Your task to perform on an android device: What's the weather today? Image 0: 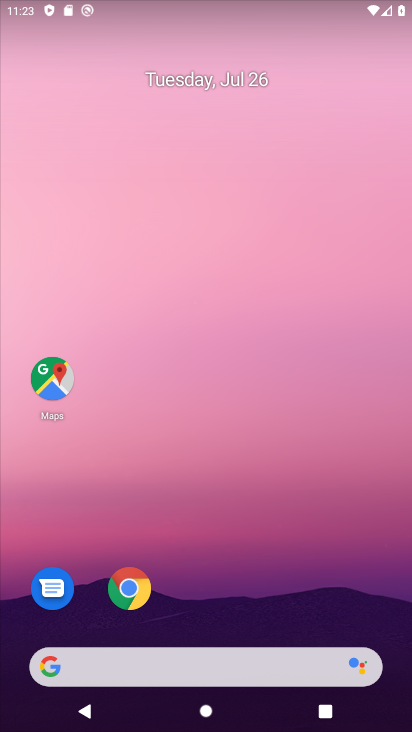
Step 0: click (161, 667)
Your task to perform on an android device: What's the weather today? Image 1: 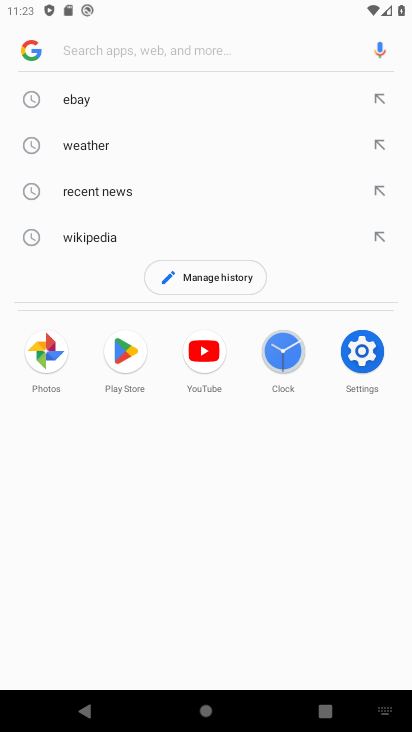
Step 1: type "What's the weather today?"
Your task to perform on an android device: What's the weather today? Image 2: 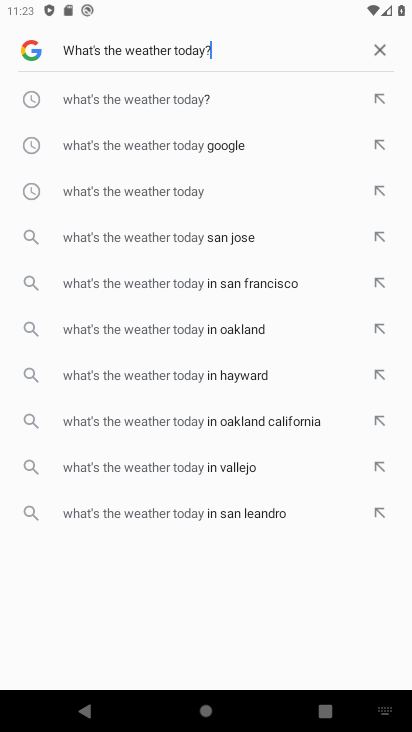
Step 2: type ""
Your task to perform on an android device: What's the weather today? Image 3: 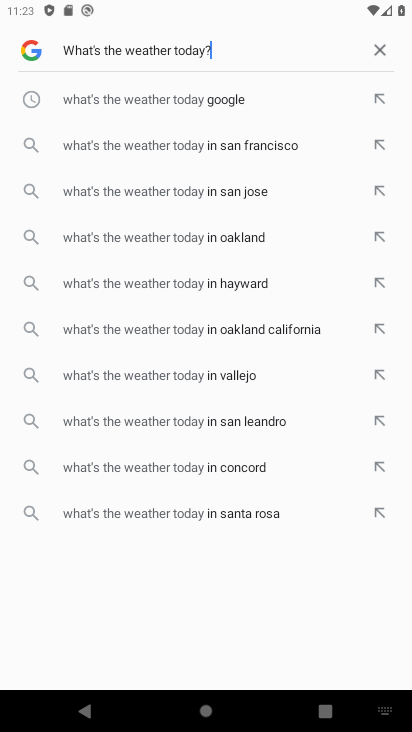
Step 3: task complete